Your task to perform on an android device: change the clock display to digital Image 0: 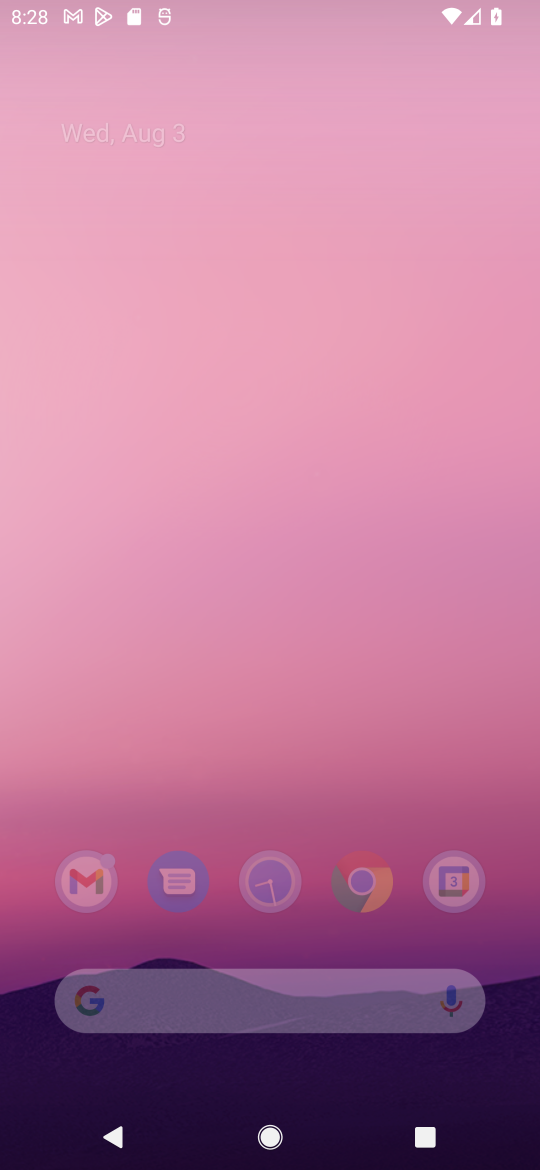
Step 0: press home button
Your task to perform on an android device: change the clock display to digital Image 1: 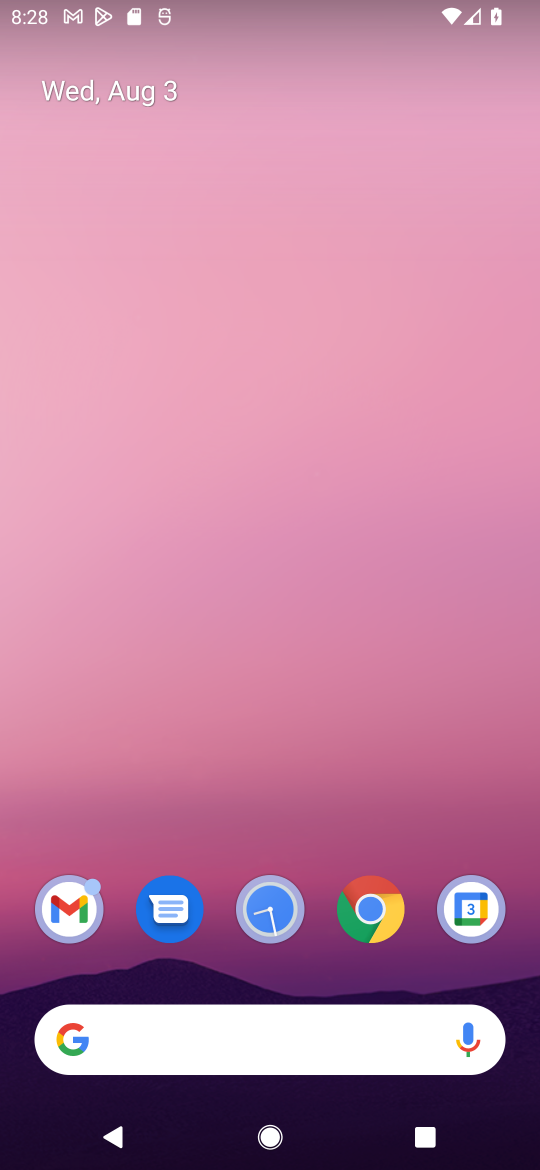
Step 1: drag from (403, 830) to (440, 328)
Your task to perform on an android device: change the clock display to digital Image 2: 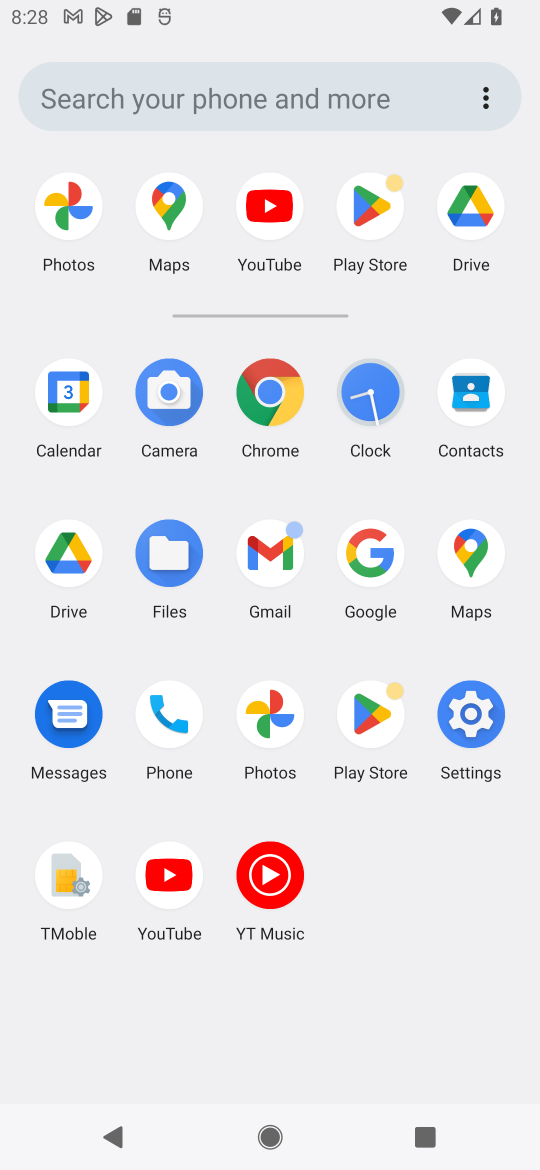
Step 2: click (362, 404)
Your task to perform on an android device: change the clock display to digital Image 3: 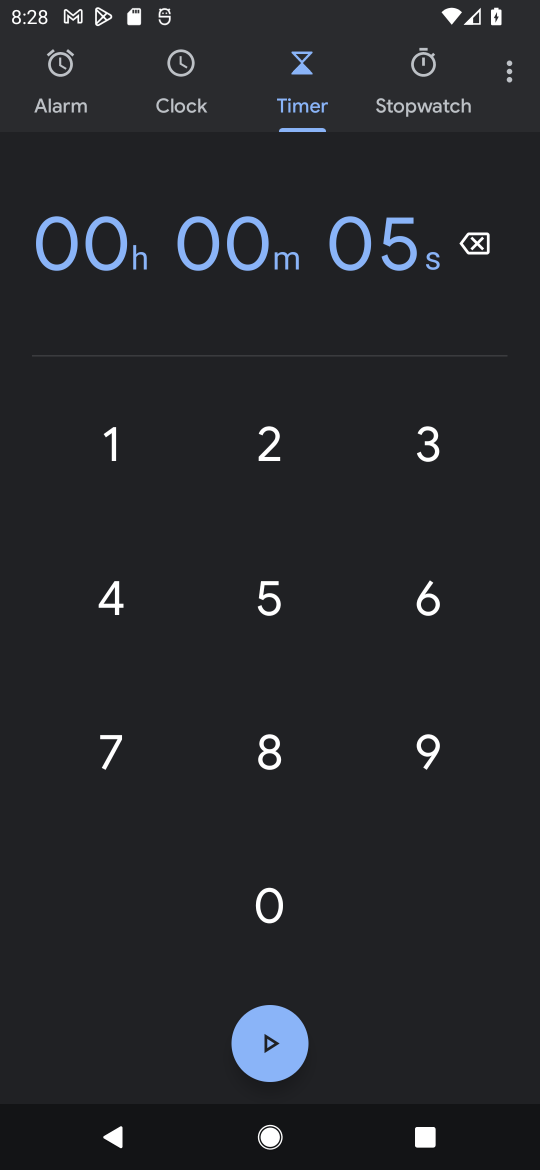
Step 3: click (513, 75)
Your task to perform on an android device: change the clock display to digital Image 4: 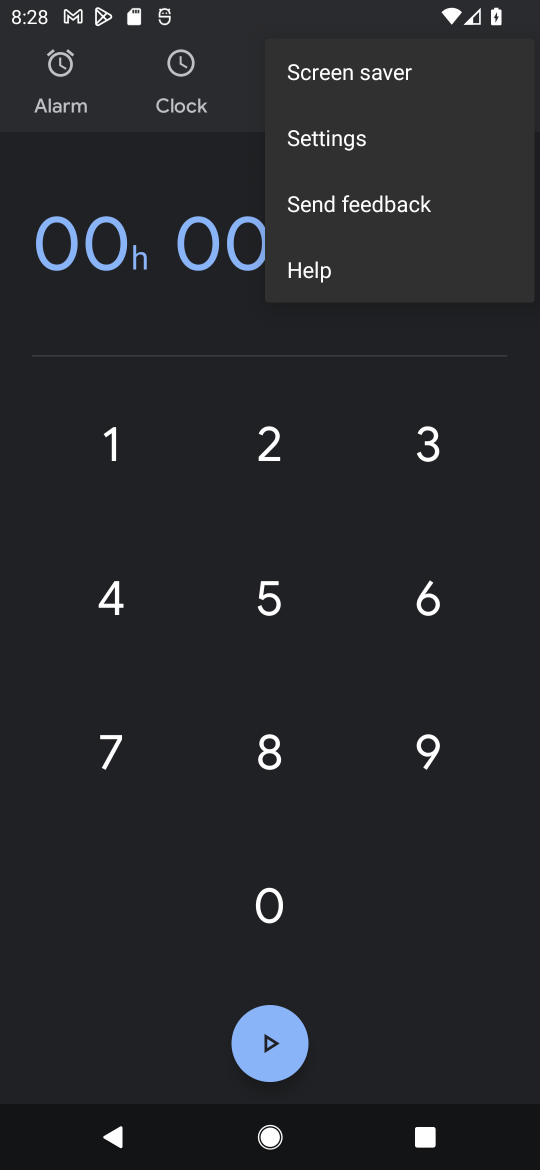
Step 4: click (430, 125)
Your task to perform on an android device: change the clock display to digital Image 5: 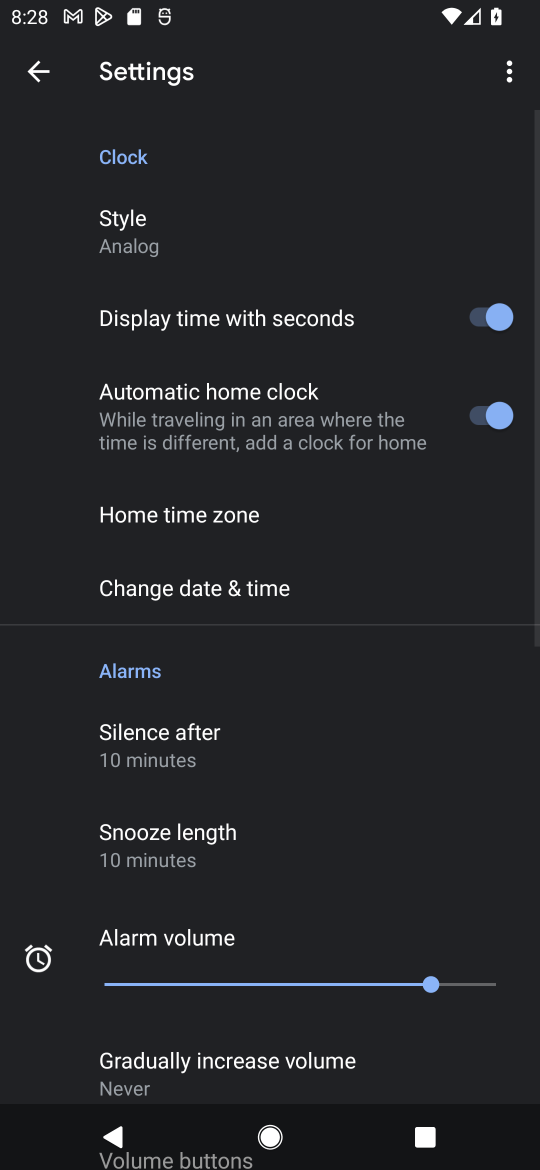
Step 5: drag from (357, 650) to (373, 518)
Your task to perform on an android device: change the clock display to digital Image 6: 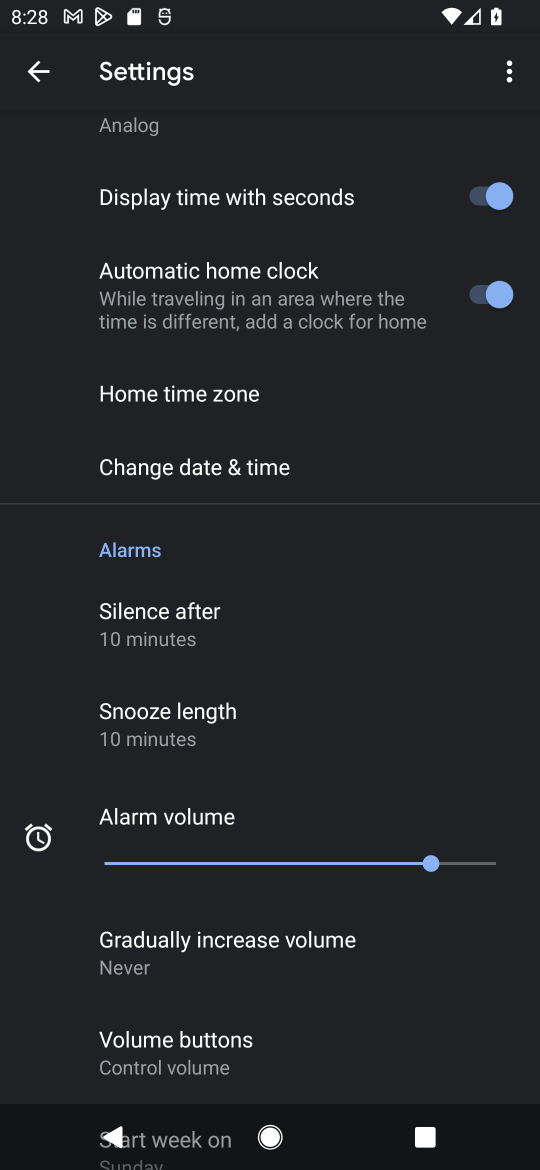
Step 6: drag from (393, 674) to (416, 556)
Your task to perform on an android device: change the clock display to digital Image 7: 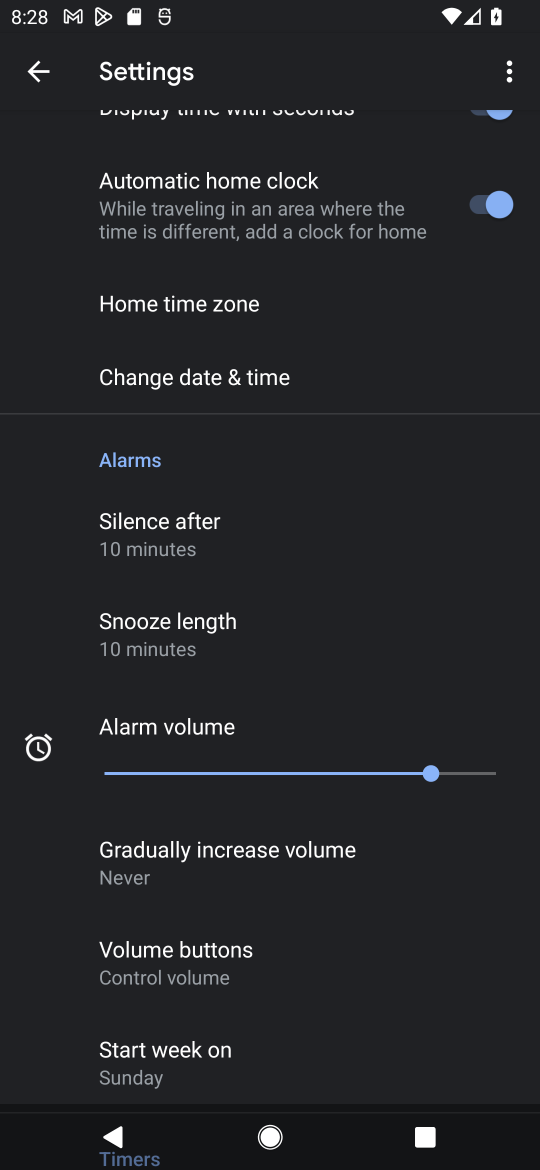
Step 7: drag from (400, 707) to (405, 564)
Your task to perform on an android device: change the clock display to digital Image 8: 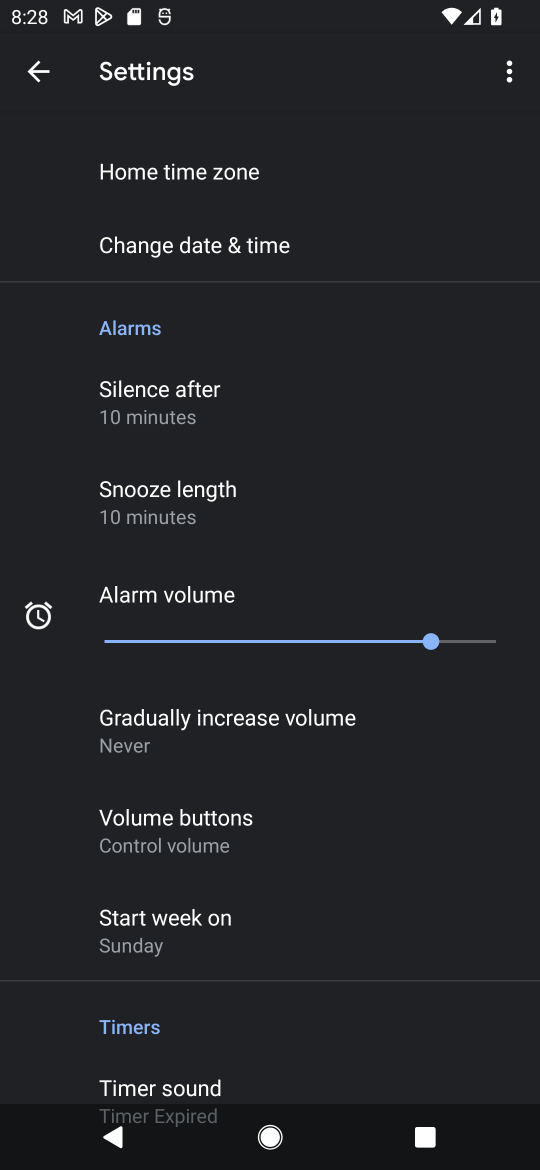
Step 8: drag from (397, 719) to (410, 567)
Your task to perform on an android device: change the clock display to digital Image 9: 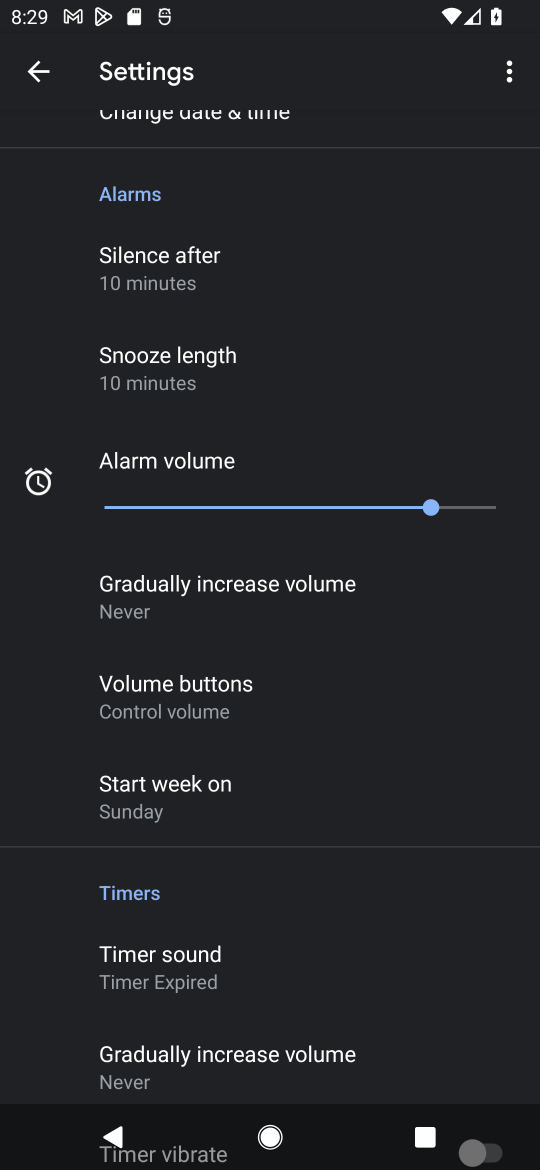
Step 9: drag from (409, 698) to (409, 569)
Your task to perform on an android device: change the clock display to digital Image 10: 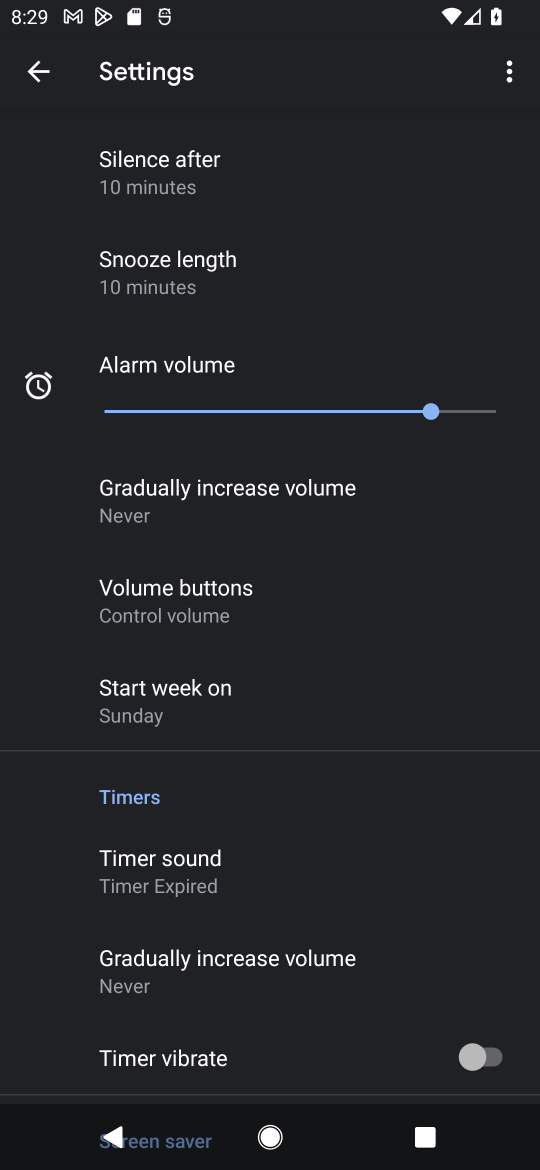
Step 10: drag from (414, 779) to (417, 592)
Your task to perform on an android device: change the clock display to digital Image 11: 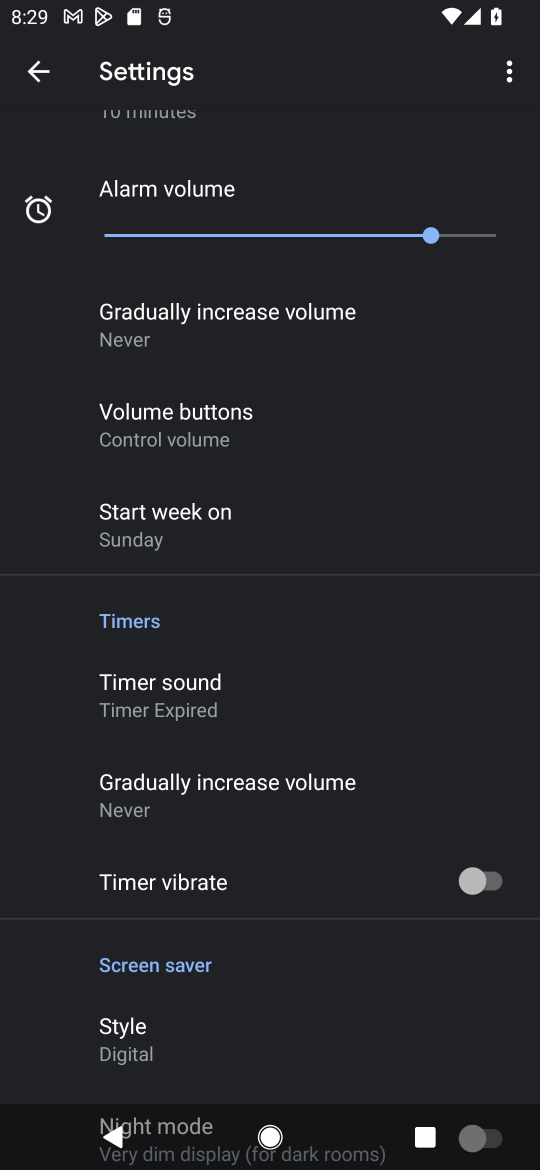
Step 11: drag from (392, 792) to (398, 633)
Your task to perform on an android device: change the clock display to digital Image 12: 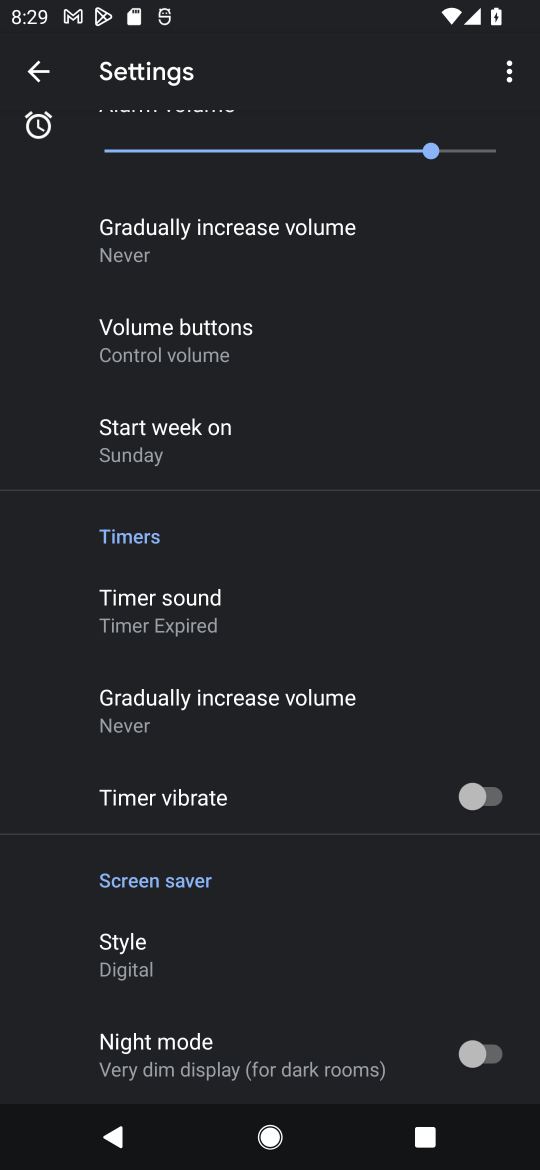
Step 12: drag from (414, 476) to (405, 572)
Your task to perform on an android device: change the clock display to digital Image 13: 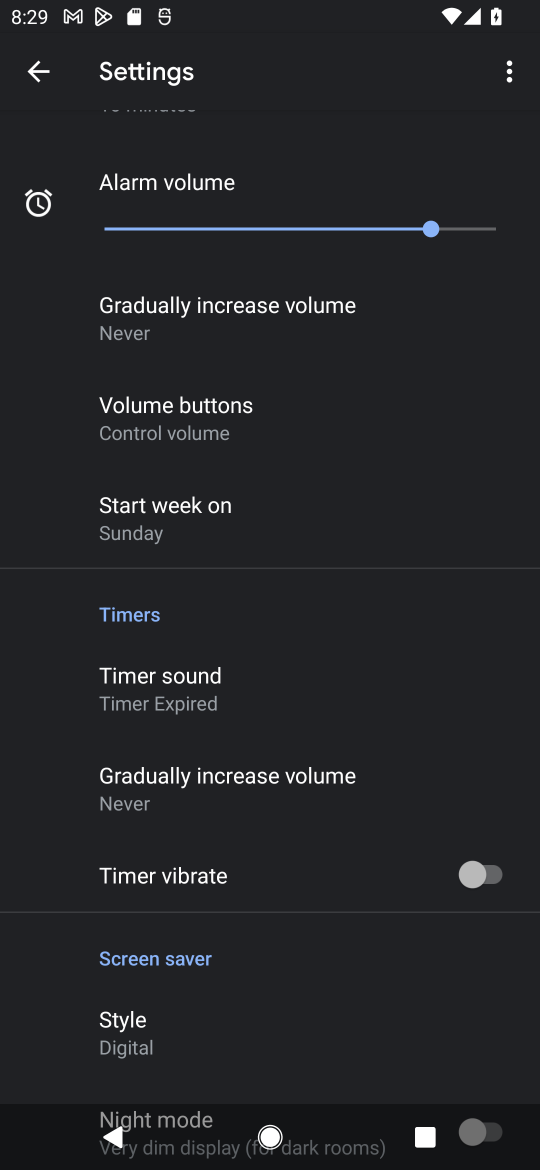
Step 13: drag from (405, 408) to (396, 544)
Your task to perform on an android device: change the clock display to digital Image 14: 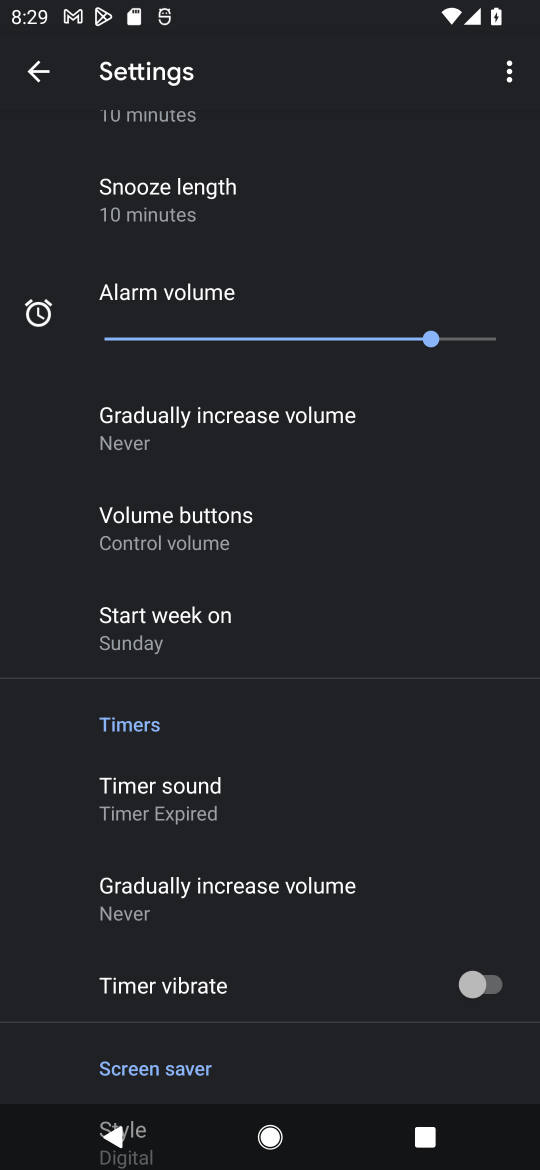
Step 14: drag from (396, 388) to (393, 547)
Your task to perform on an android device: change the clock display to digital Image 15: 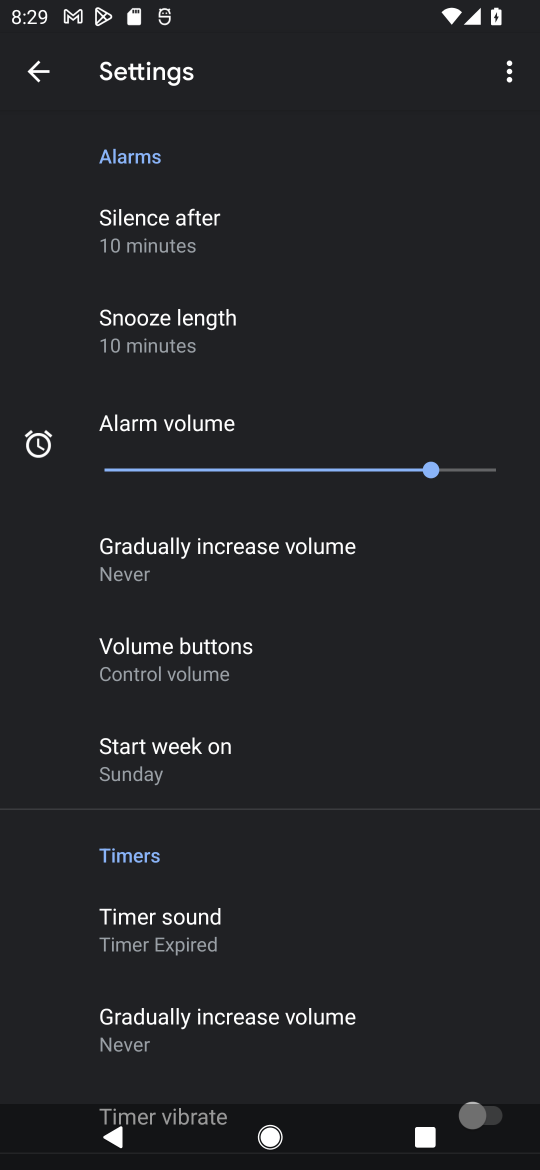
Step 15: drag from (387, 343) to (387, 474)
Your task to perform on an android device: change the clock display to digital Image 16: 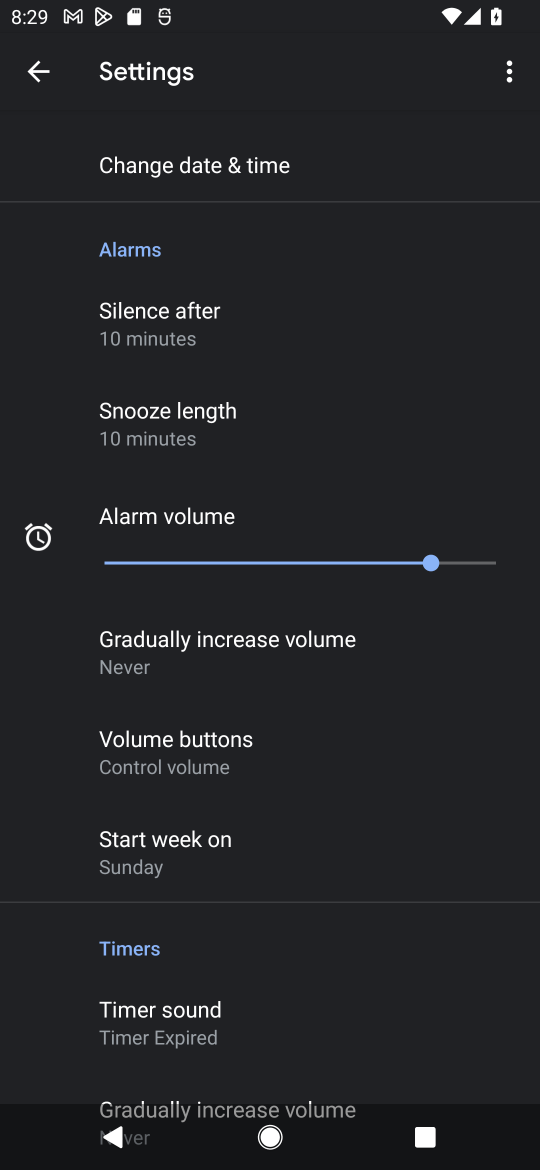
Step 16: drag from (392, 322) to (389, 437)
Your task to perform on an android device: change the clock display to digital Image 17: 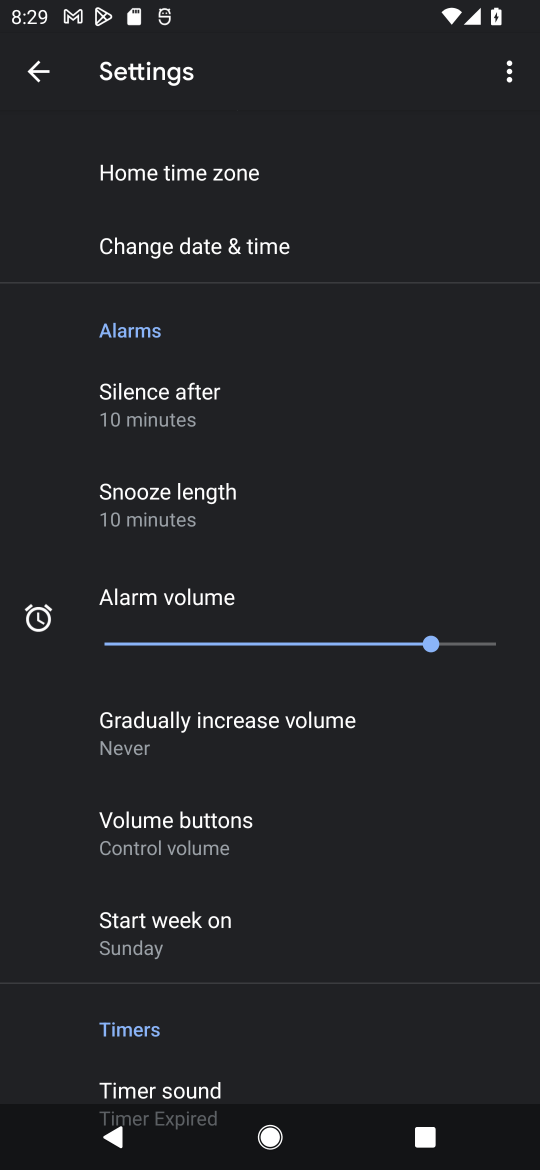
Step 17: drag from (404, 318) to (406, 440)
Your task to perform on an android device: change the clock display to digital Image 18: 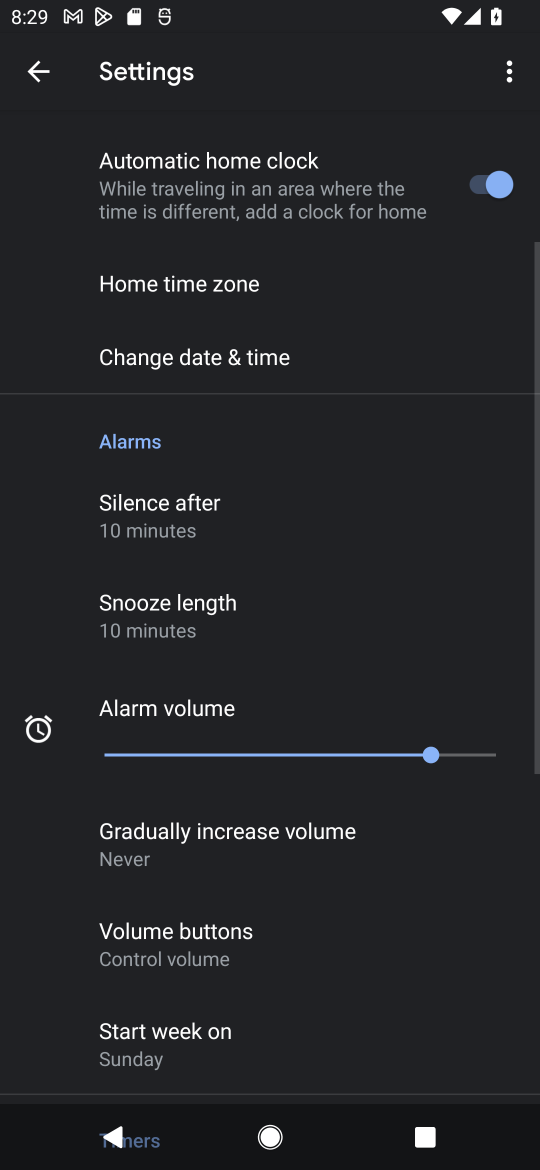
Step 18: drag from (419, 290) to (422, 410)
Your task to perform on an android device: change the clock display to digital Image 19: 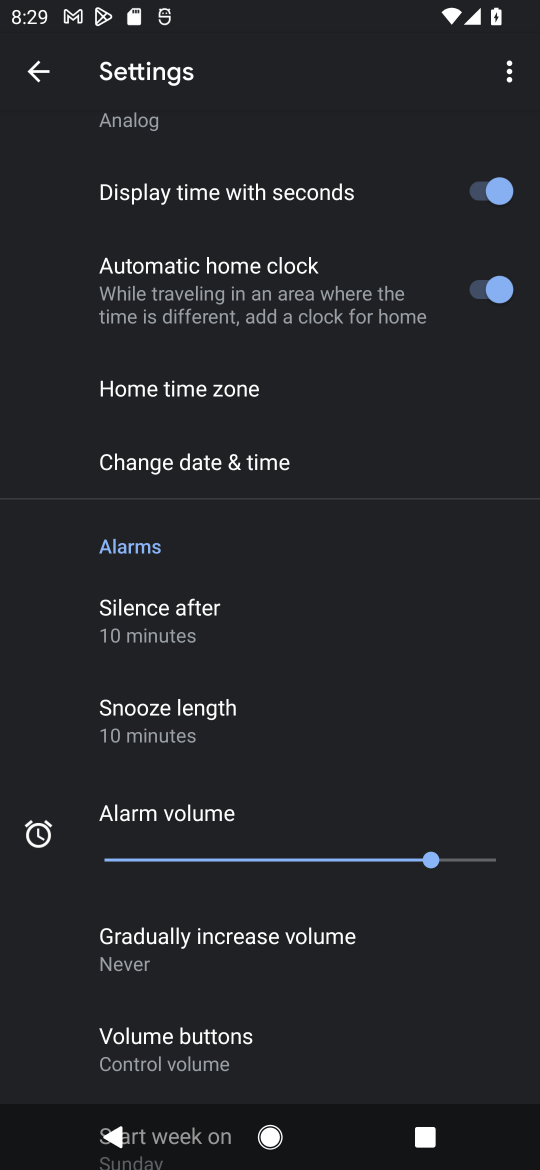
Step 19: drag from (428, 222) to (409, 387)
Your task to perform on an android device: change the clock display to digital Image 20: 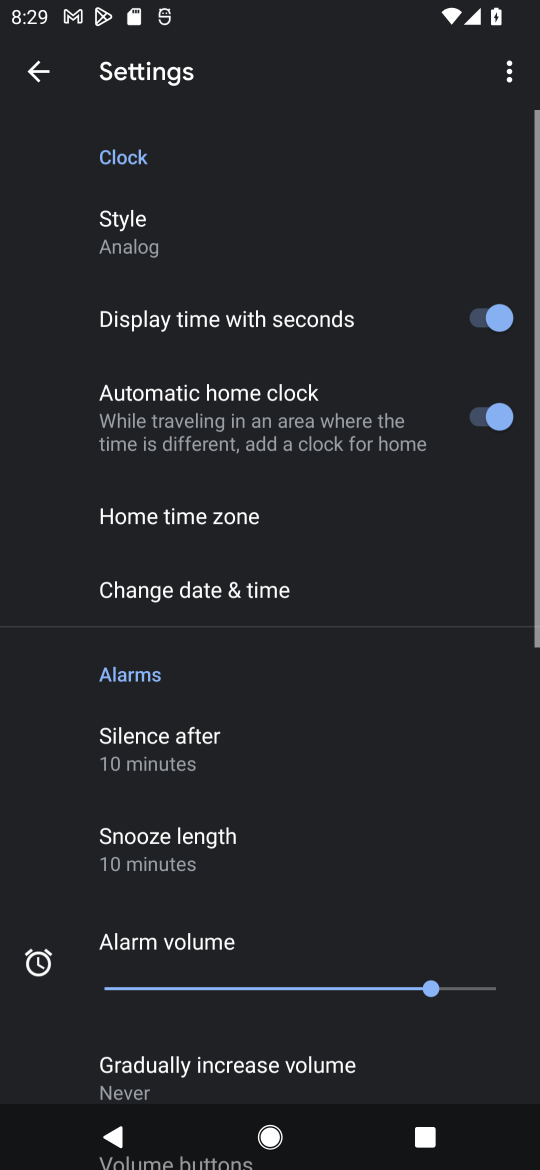
Step 20: click (112, 222)
Your task to perform on an android device: change the clock display to digital Image 21: 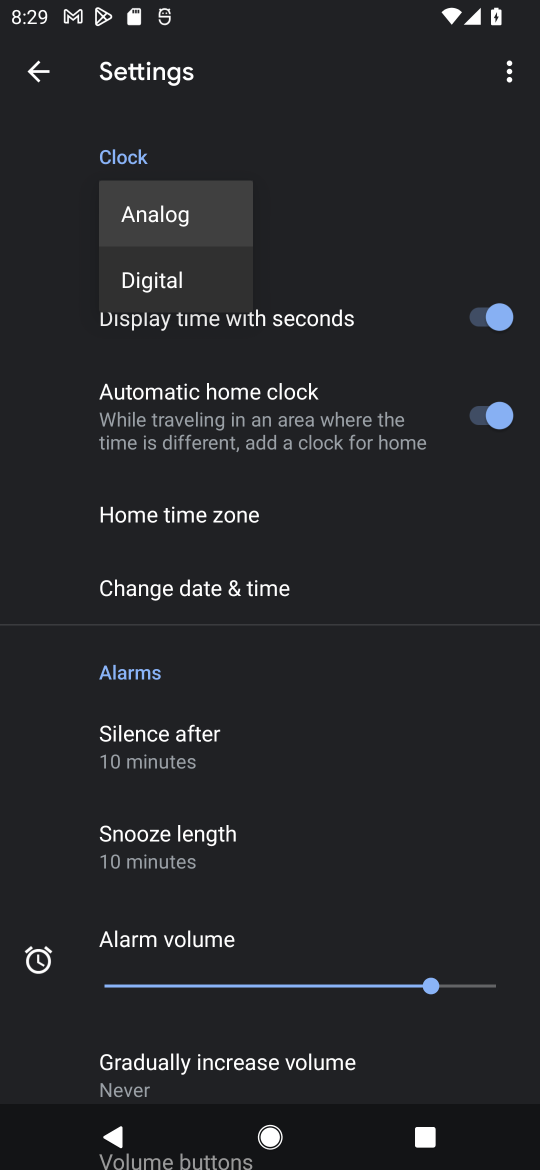
Step 21: click (189, 297)
Your task to perform on an android device: change the clock display to digital Image 22: 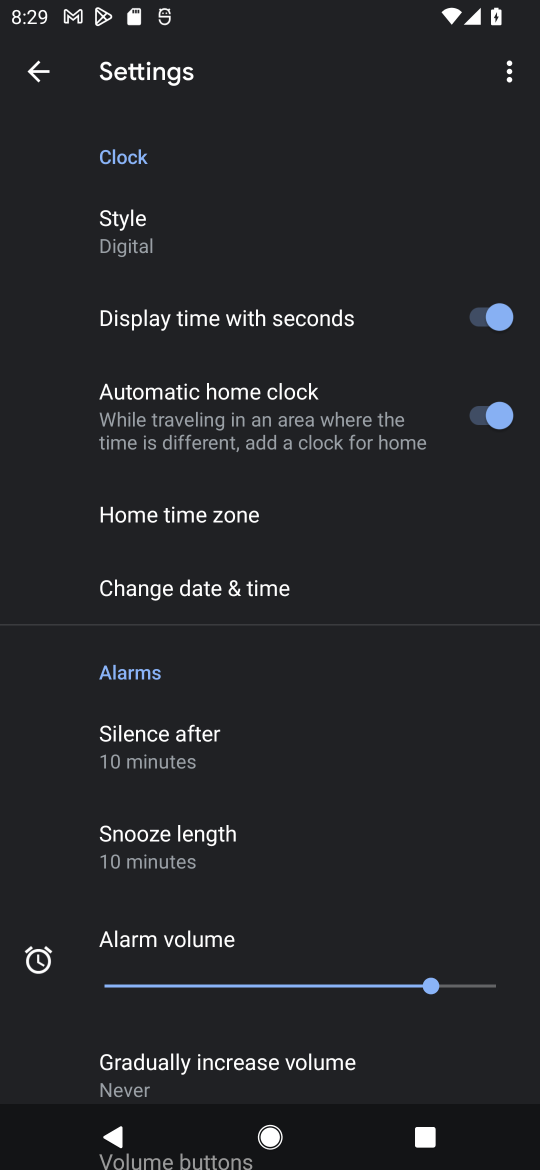
Step 22: task complete